Your task to perform on an android device: check google app version Image 0: 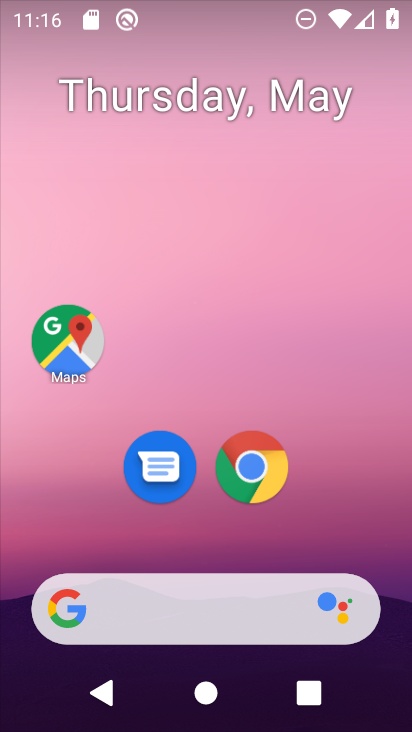
Step 0: drag from (257, 536) to (288, 150)
Your task to perform on an android device: check google app version Image 1: 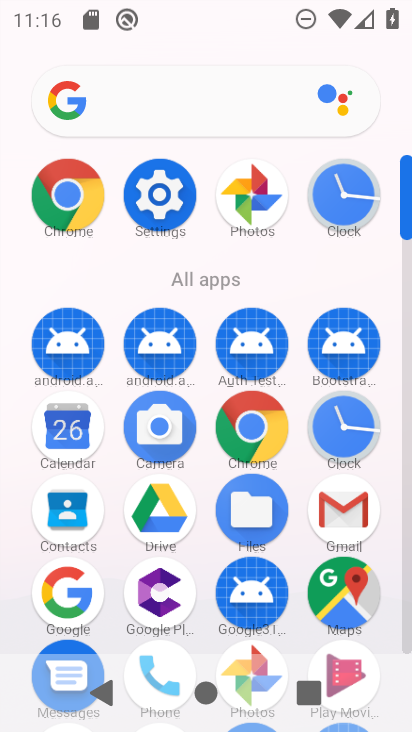
Step 1: drag from (209, 272) to (241, 70)
Your task to perform on an android device: check google app version Image 2: 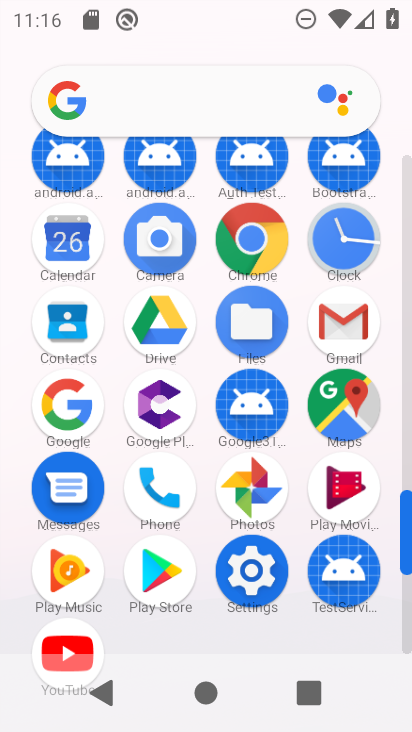
Step 2: click (89, 412)
Your task to perform on an android device: check google app version Image 3: 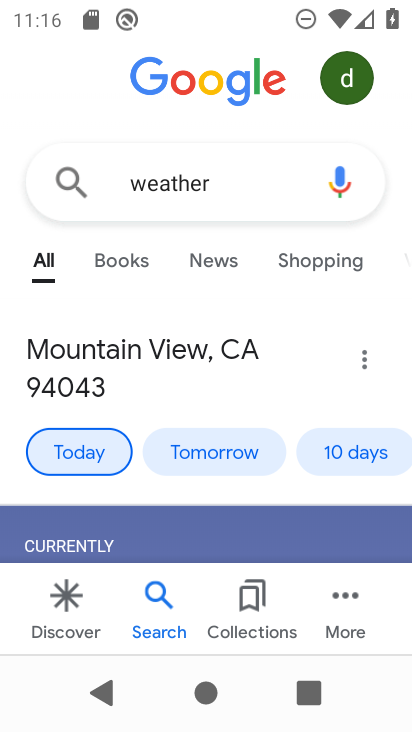
Step 3: click (337, 601)
Your task to perform on an android device: check google app version Image 4: 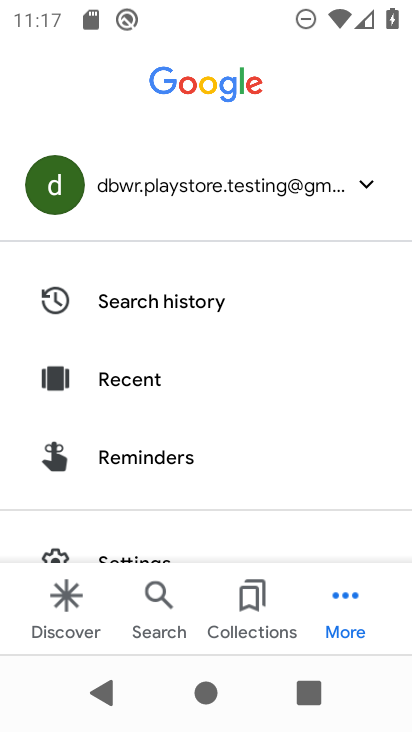
Step 4: drag from (266, 526) to (276, 195)
Your task to perform on an android device: check google app version Image 5: 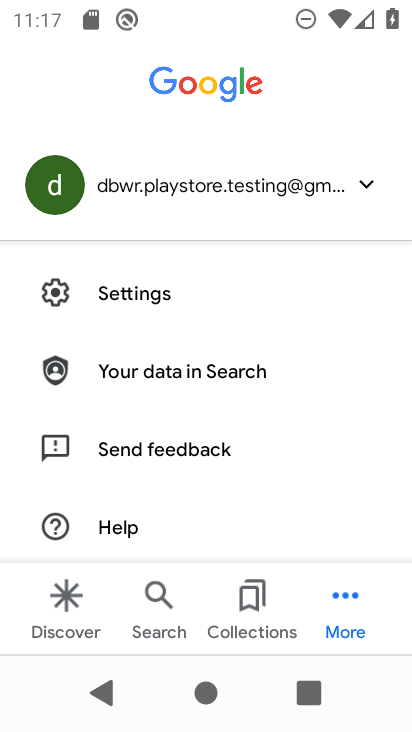
Step 5: click (160, 306)
Your task to perform on an android device: check google app version Image 6: 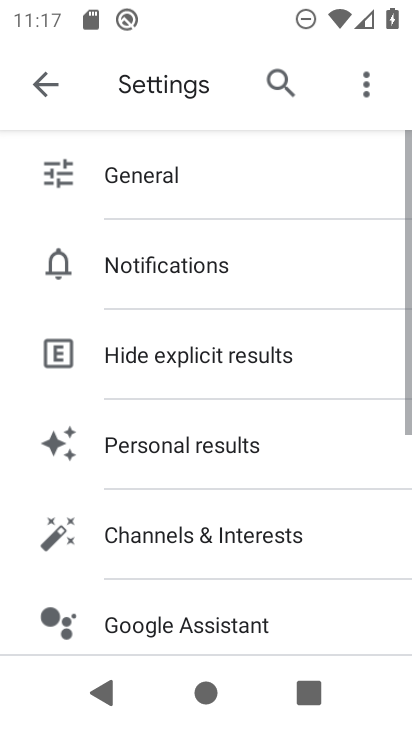
Step 6: drag from (172, 548) to (265, 84)
Your task to perform on an android device: check google app version Image 7: 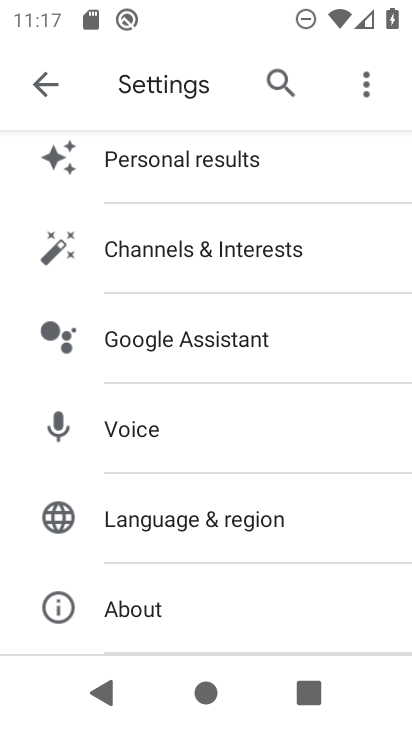
Step 7: click (145, 604)
Your task to perform on an android device: check google app version Image 8: 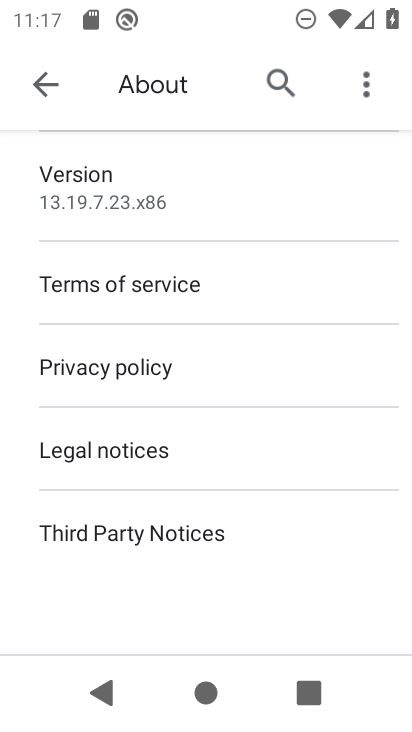
Step 8: click (253, 219)
Your task to perform on an android device: check google app version Image 9: 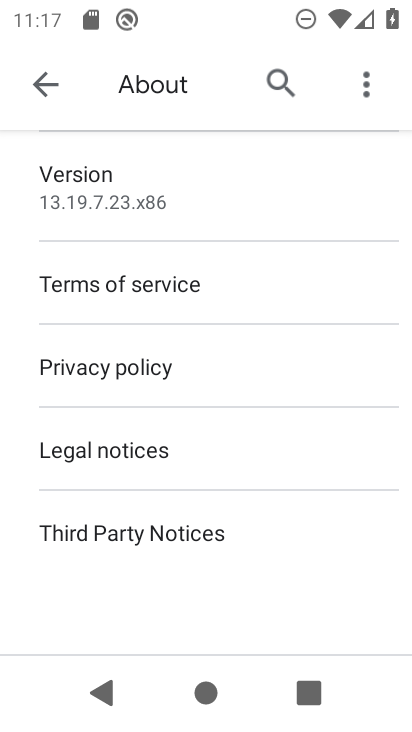
Step 9: task complete